Your task to perform on an android device: Open Android settings Image 0: 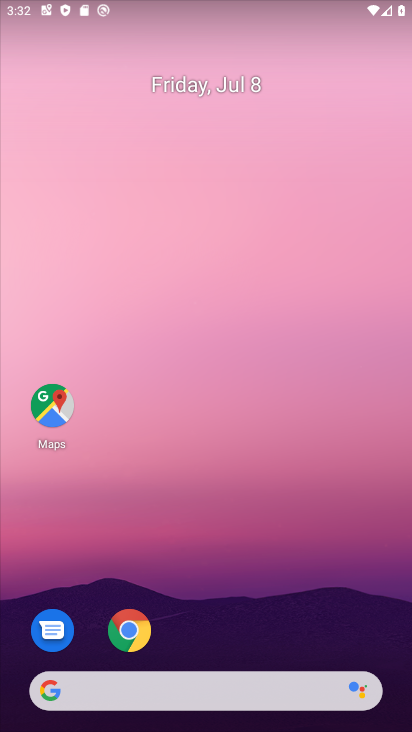
Step 0: drag from (276, 622) to (293, 184)
Your task to perform on an android device: Open Android settings Image 1: 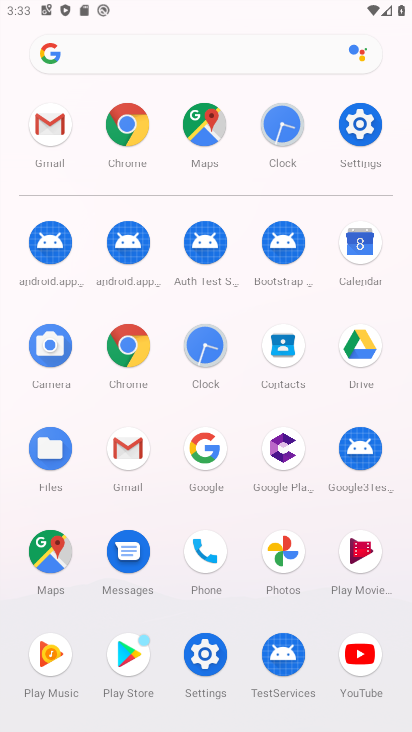
Step 1: click (340, 145)
Your task to perform on an android device: Open Android settings Image 2: 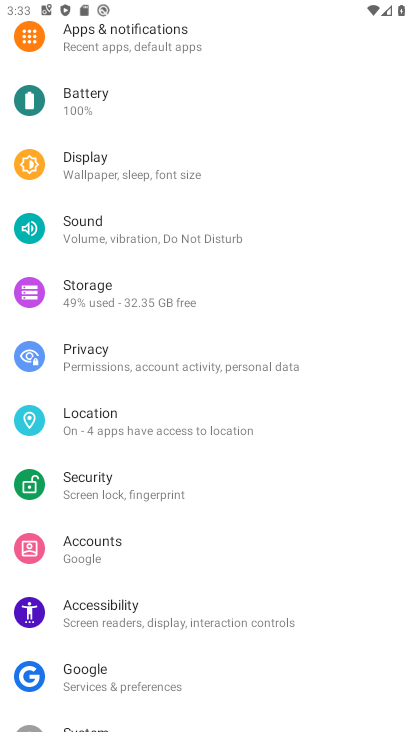
Step 2: drag from (151, 597) to (151, 115)
Your task to perform on an android device: Open Android settings Image 3: 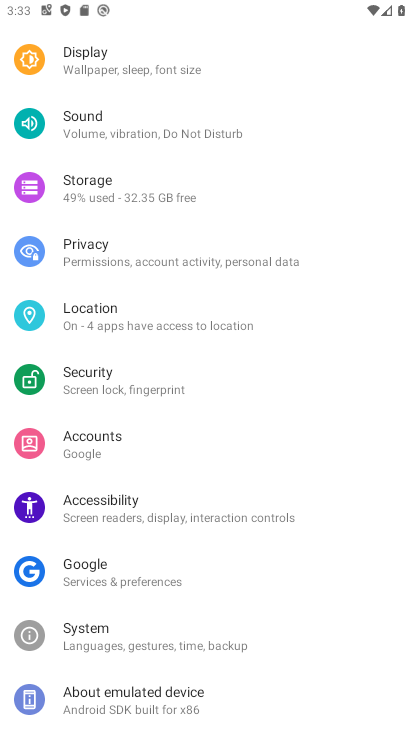
Step 3: click (124, 705)
Your task to perform on an android device: Open Android settings Image 4: 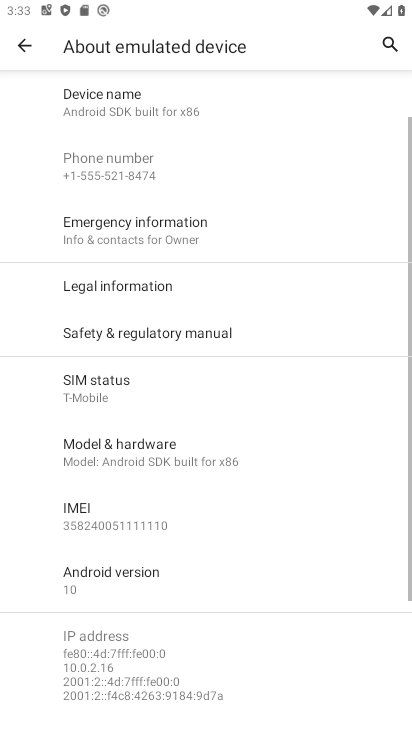
Step 4: task complete